Your task to perform on an android device: Show me the alarms in the clock app Image 0: 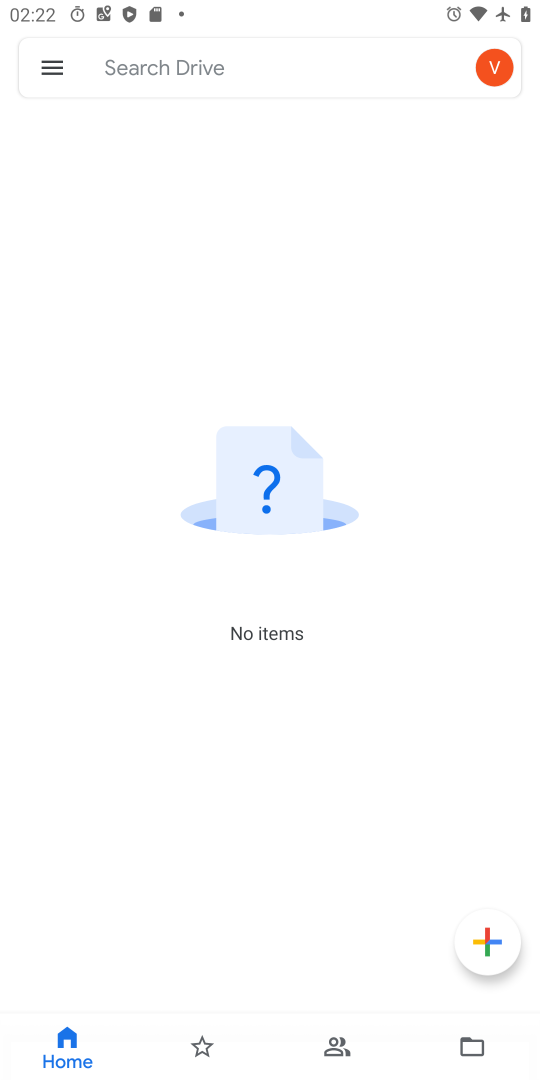
Step 0: press home button
Your task to perform on an android device: Show me the alarms in the clock app Image 1: 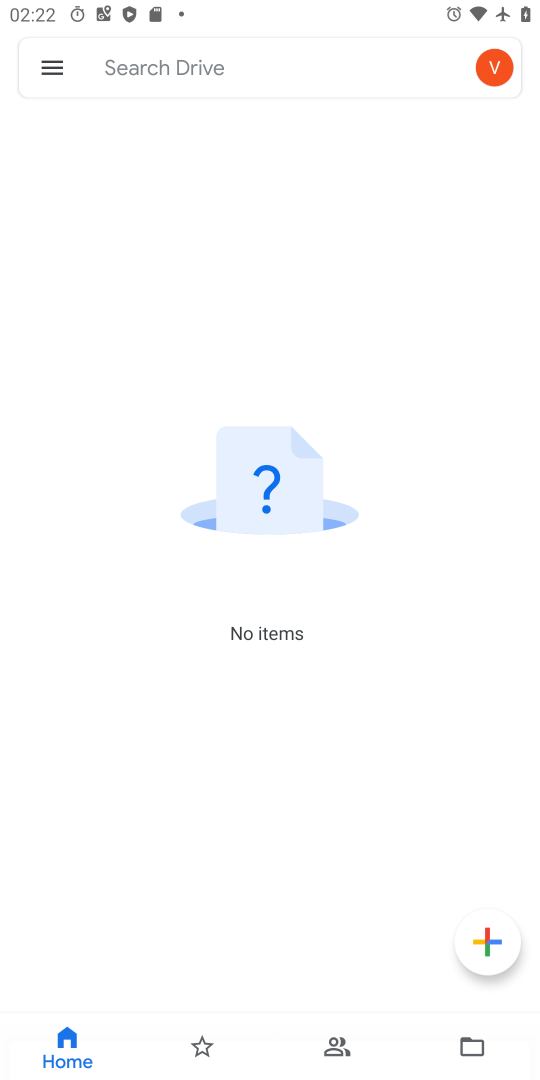
Step 1: press home button
Your task to perform on an android device: Show me the alarms in the clock app Image 2: 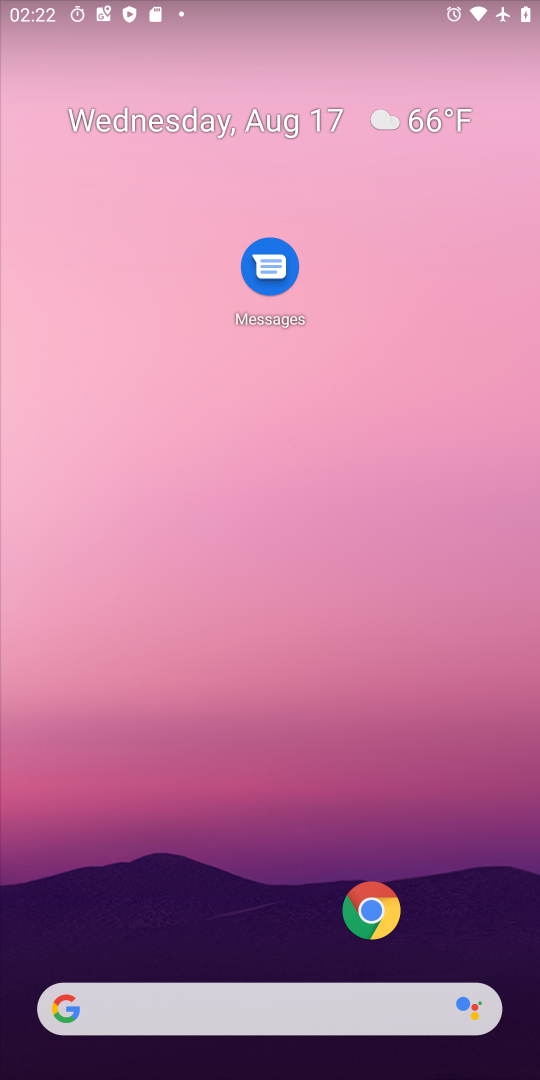
Step 2: drag from (255, 956) to (261, 0)
Your task to perform on an android device: Show me the alarms in the clock app Image 3: 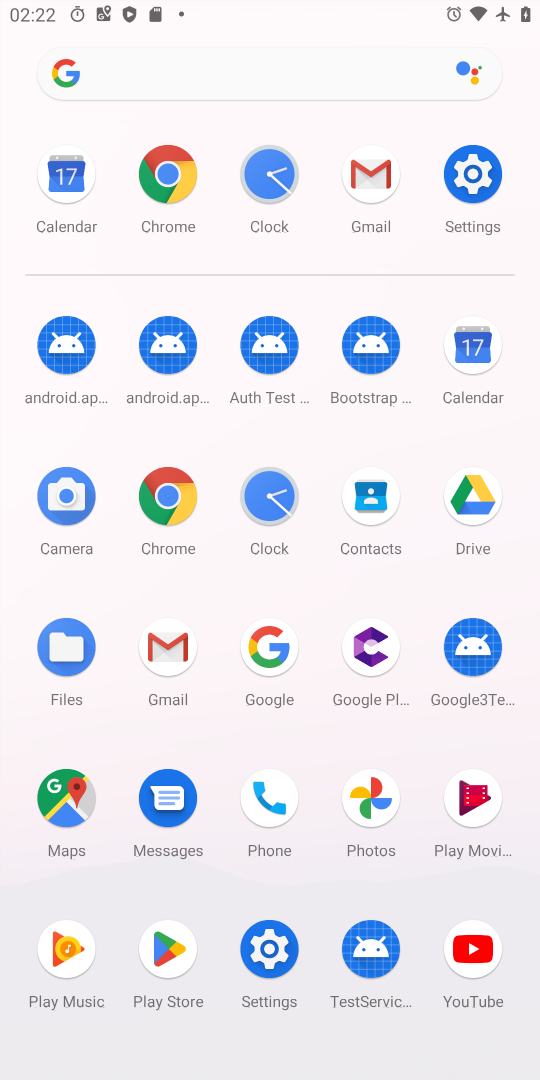
Step 3: click (262, 485)
Your task to perform on an android device: Show me the alarms in the clock app Image 4: 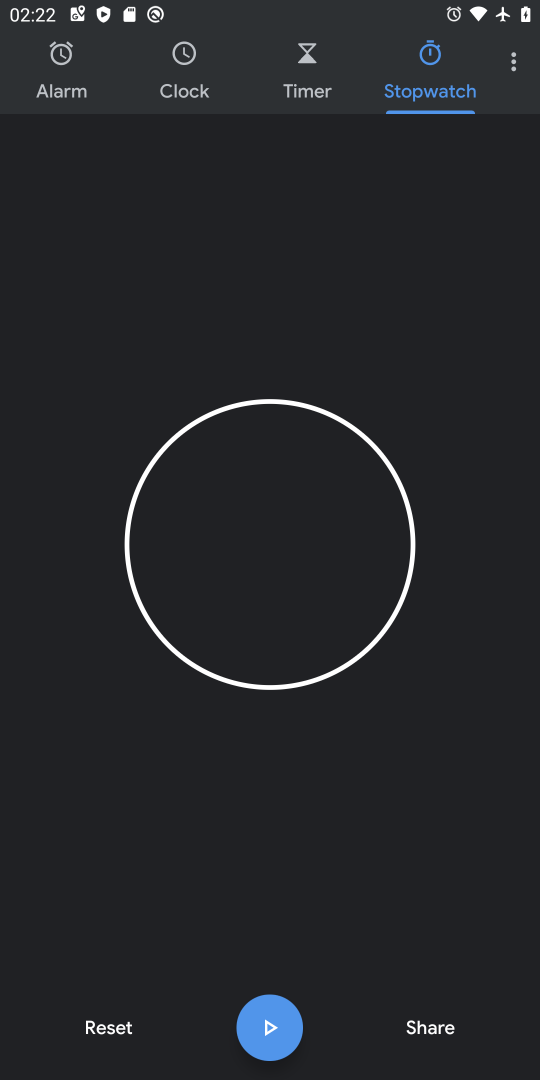
Step 4: click (60, 59)
Your task to perform on an android device: Show me the alarms in the clock app Image 5: 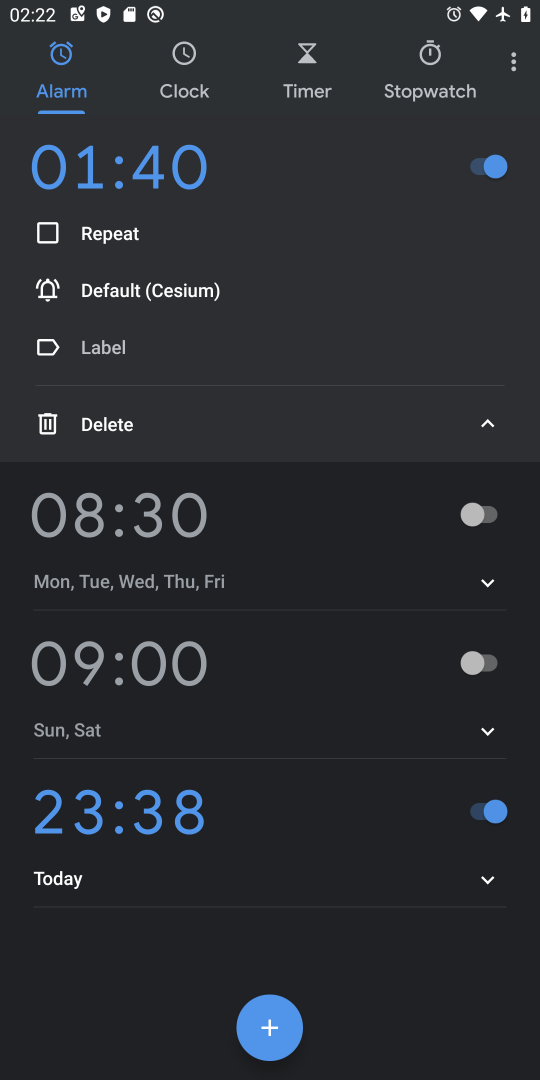
Step 5: task complete